Your task to perform on an android device: open app "Microsoft Outlook" (install if not already installed) Image 0: 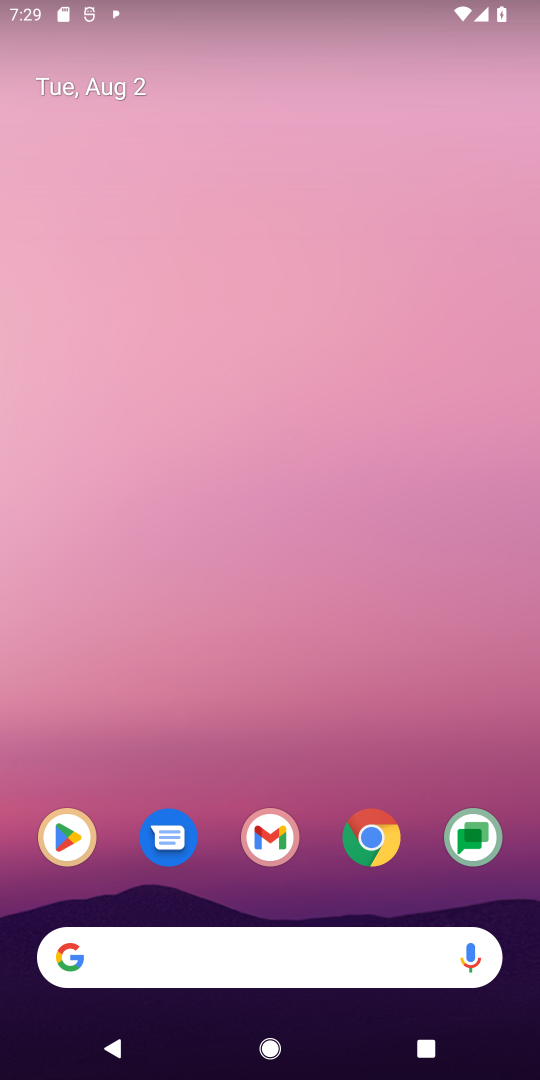
Step 0: click (60, 826)
Your task to perform on an android device: open app "Microsoft Outlook" (install if not already installed) Image 1: 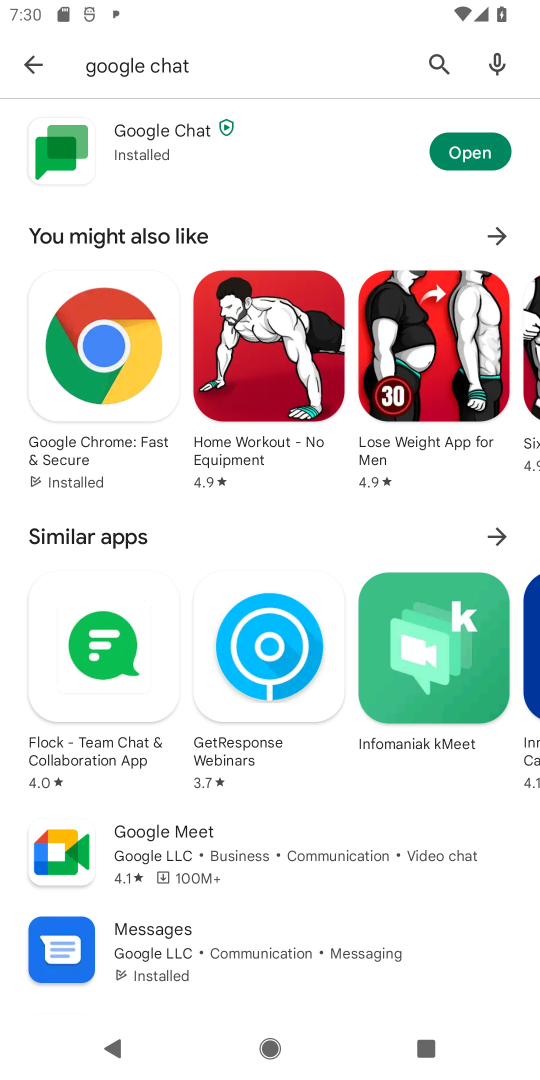
Step 1: click (429, 52)
Your task to perform on an android device: open app "Microsoft Outlook" (install if not already installed) Image 2: 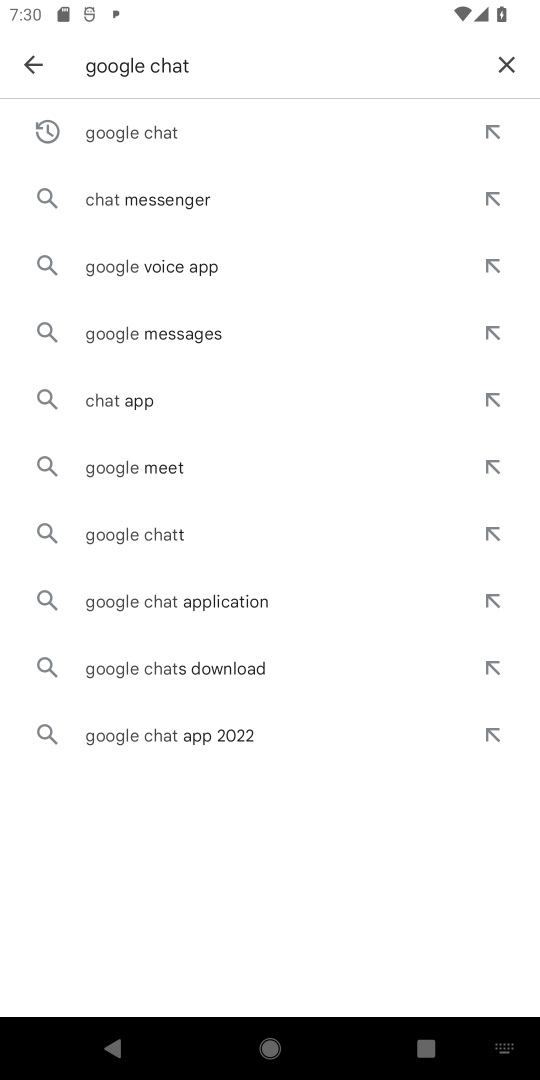
Step 2: click (511, 63)
Your task to perform on an android device: open app "Microsoft Outlook" (install if not already installed) Image 3: 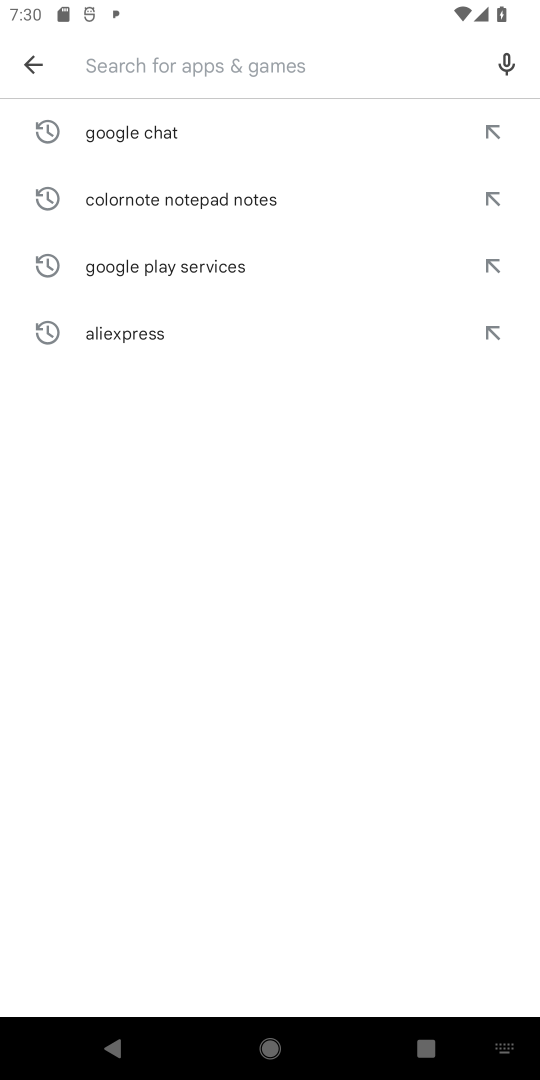
Step 3: type "Microsoft Outlook"
Your task to perform on an android device: open app "Microsoft Outlook" (install if not already installed) Image 4: 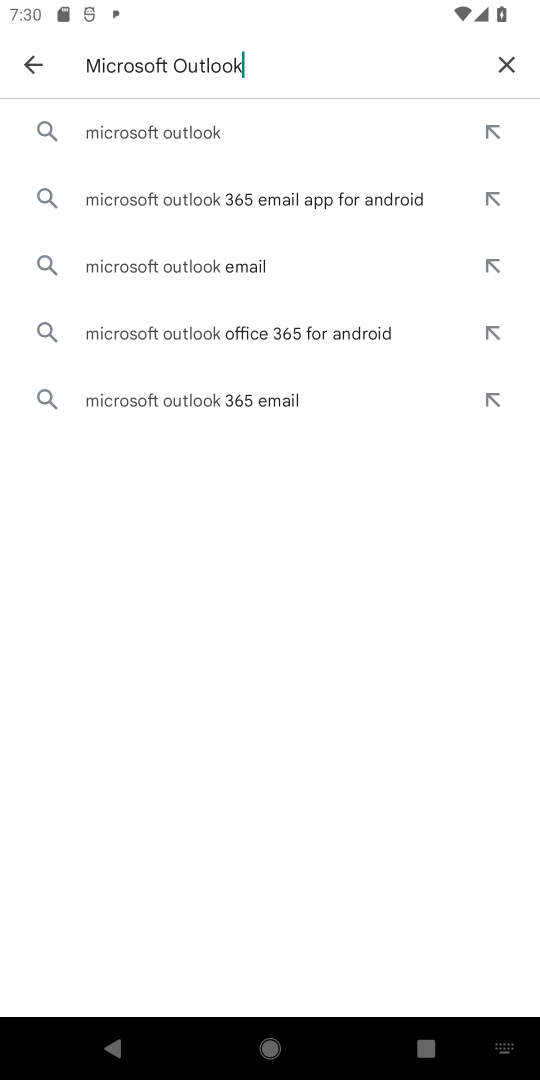
Step 4: click (170, 141)
Your task to perform on an android device: open app "Microsoft Outlook" (install if not already installed) Image 5: 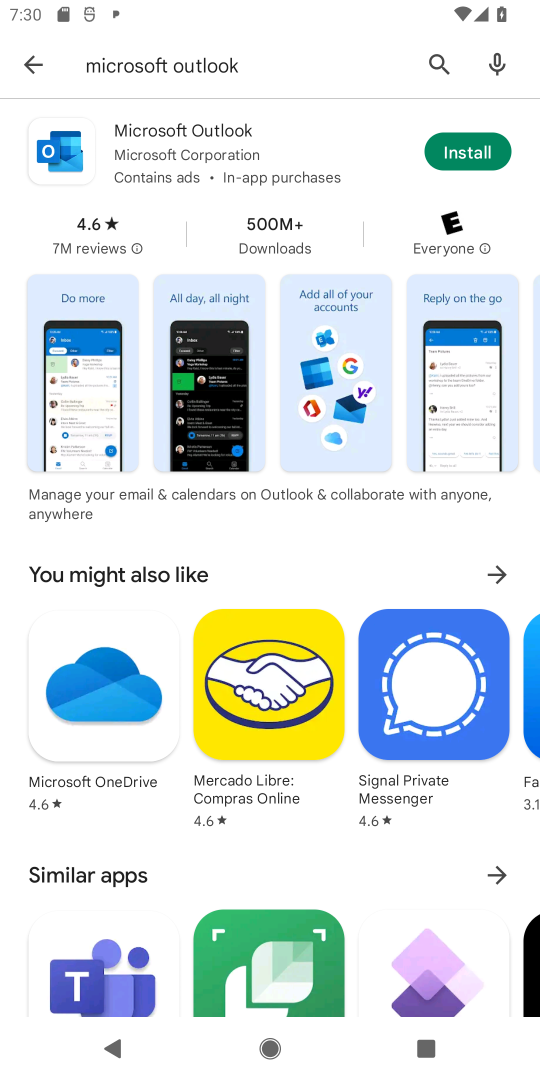
Step 5: click (444, 158)
Your task to perform on an android device: open app "Microsoft Outlook" (install if not already installed) Image 6: 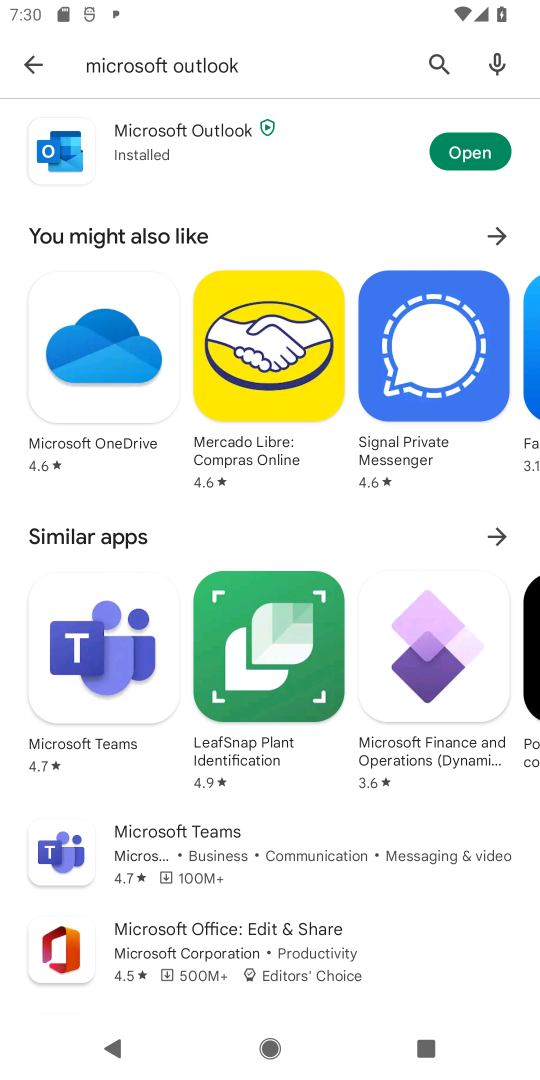
Step 6: click (466, 163)
Your task to perform on an android device: open app "Microsoft Outlook" (install if not already installed) Image 7: 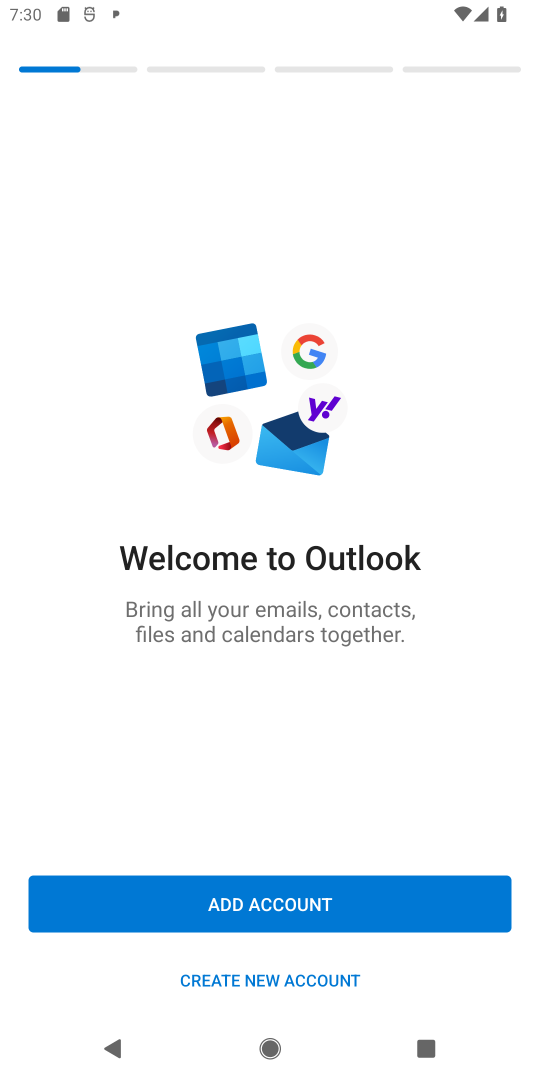
Step 7: task complete